Your task to perform on an android device: check the backup settings in the google photos Image 0: 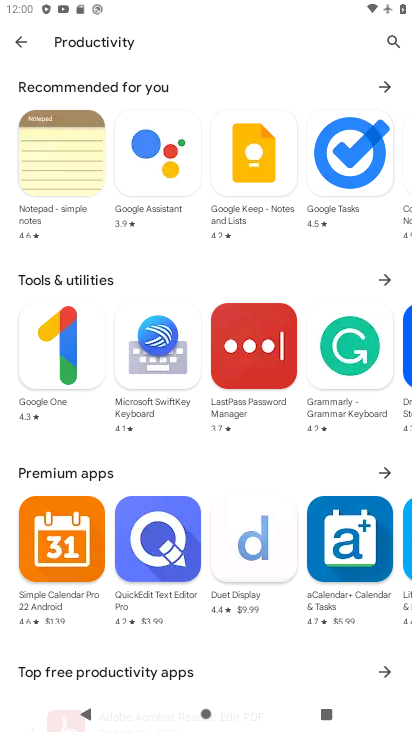
Step 0: press home button
Your task to perform on an android device: check the backup settings in the google photos Image 1: 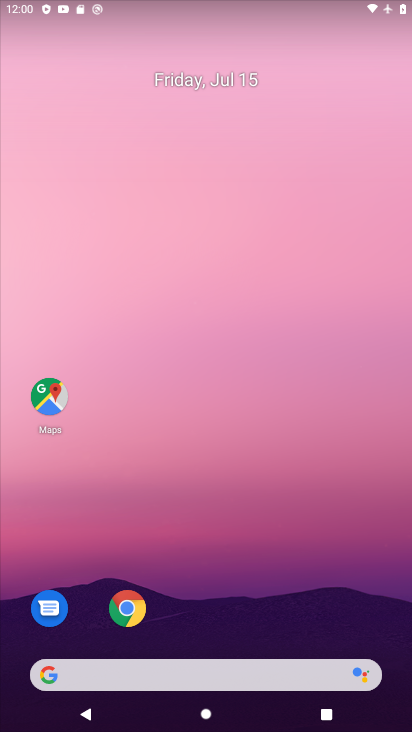
Step 1: drag from (188, 629) to (211, 148)
Your task to perform on an android device: check the backup settings in the google photos Image 2: 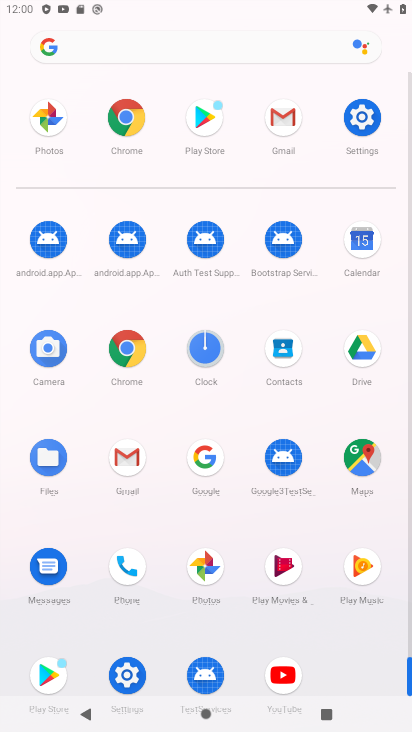
Step 2: click (209, 568)
Your task to perform on an android device: check the backup settings in the google photos Image 3: 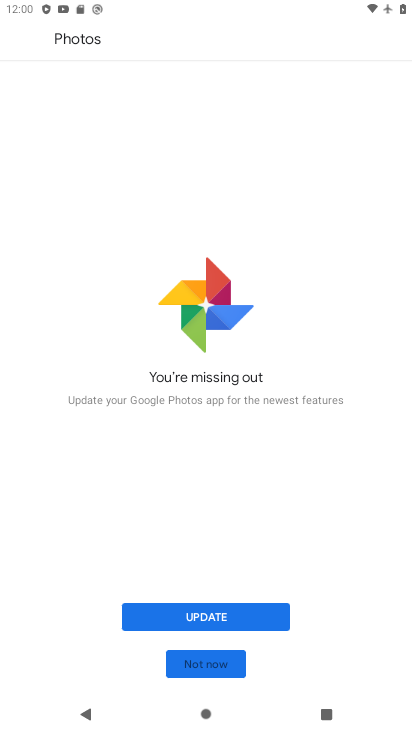
Step 3: click (212, 609)
Your task to perform on an android device: check the backup settings in the google photos Image 4: 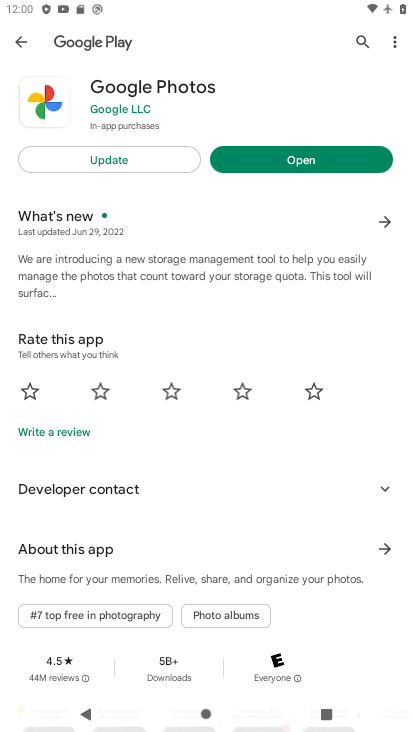
Step 4: click (120, 158)
Your task to perform on an android device: check the backup settings in the google photos Image 5: 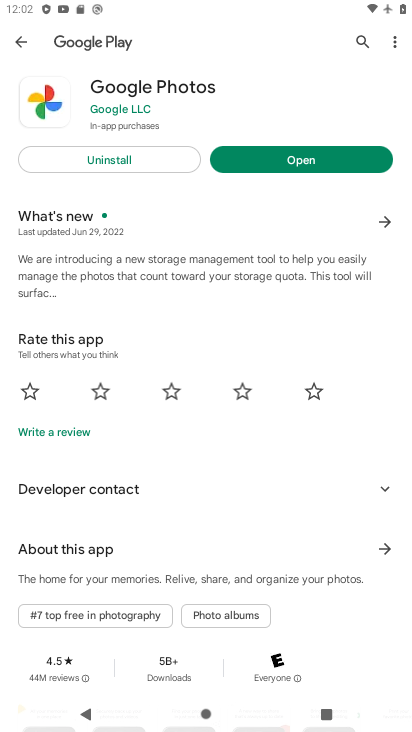
Step 5: task complete